Your task to perform on an android device: Go to notification settings Image 0: 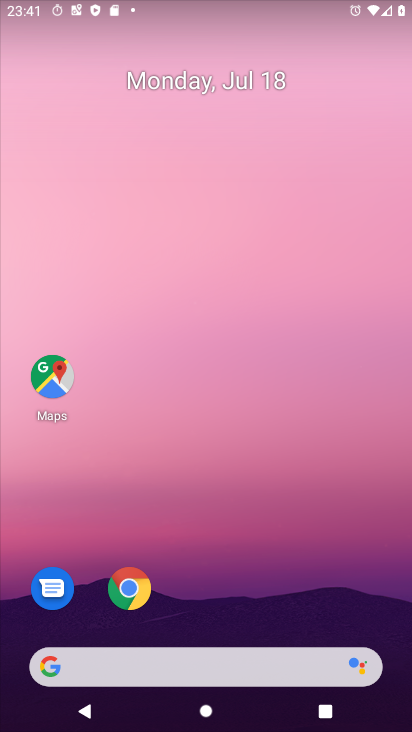
Step 0: press home button
Your task to perform on an android device: Go to notification settings Image 1: 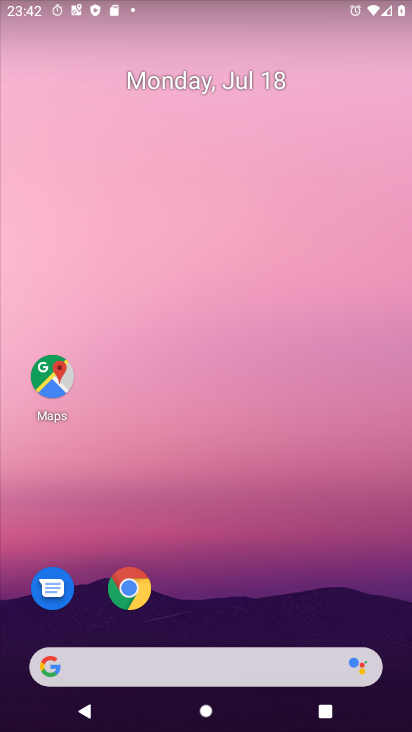
Step 1: drag from (246, 459) to (327, 128)
Your task to perform on an android device: Go to notification settings Image 2: 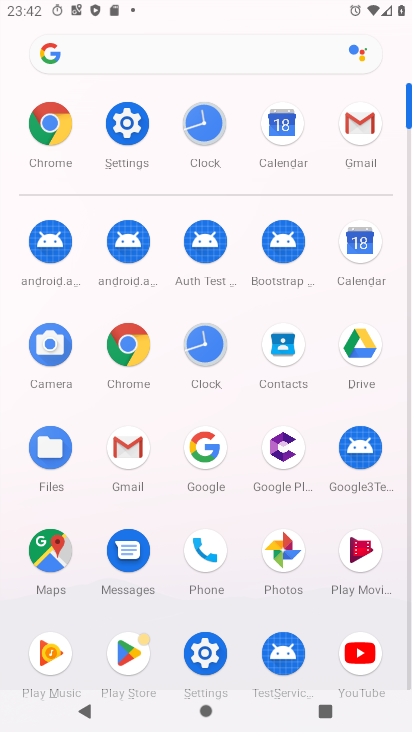
Step 2: click (127, 126)
Your task to perform on an android device: Go to notification settings Image 3: 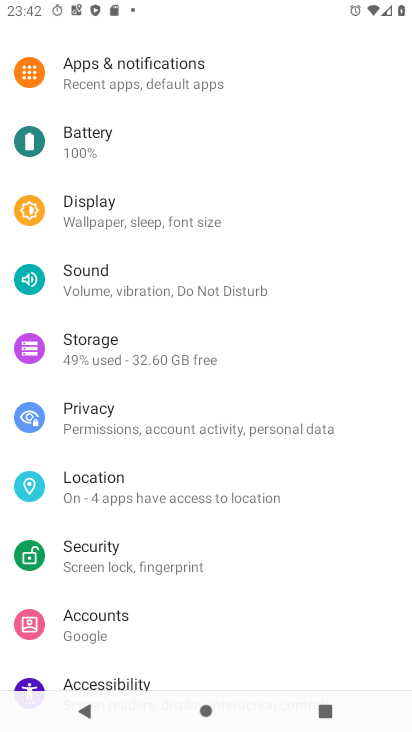
Step 3: click (151, 76)
Your task to perform on an android device: Go to notification settings Image 4: 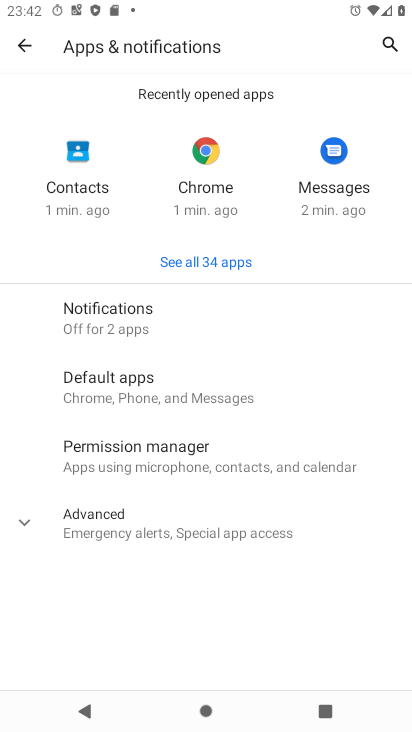
Step 4: click (137, 323)
Your task to perform on an android device: Go to notification settings Image 5: 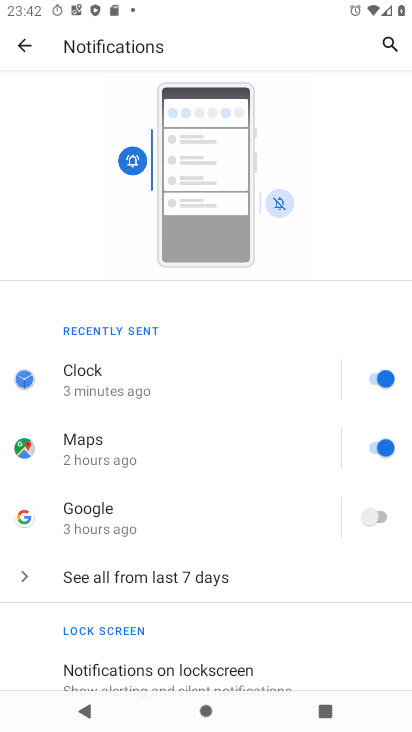
Step 5: task complete